Your task to perform on an android device: read, delete, or share a saved page in the chrome app Image 0: 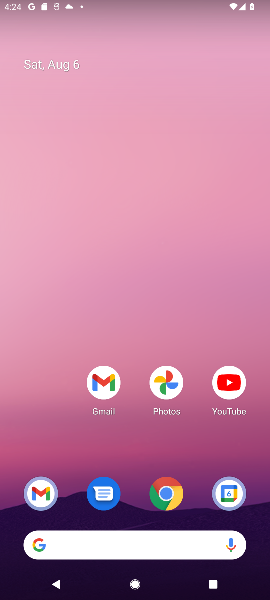
Step 0: drag from (172, 503) to (116, 165)
Your task to perform on an android device: read, delete, or share a saved page in the chrome app Image 1: 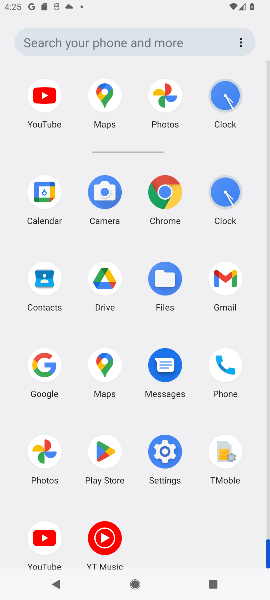
Step 1: click (163, 190)
Your task to perform on an android device: read, delete, or share a saved page in the chrome app Image 2: 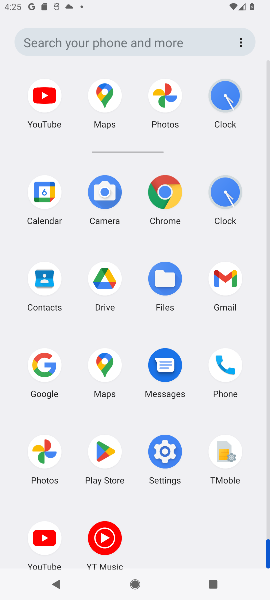
Step 2: click (164, 190)
Your task to perform on an android device: read, delete, or share a saved page in the chrome app Image 3: 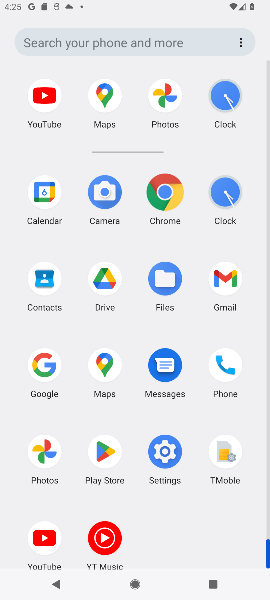
Step 3: click (164, 190)
Your task to perform on an android device: read, delete, or share a saved page in the chrome app Image 4: 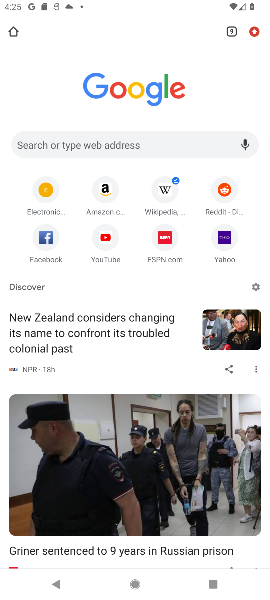
Step 4: click (248, 31)
Your task to perform on an android device: read, delete, or share a saved page in the chrome app Image 5: 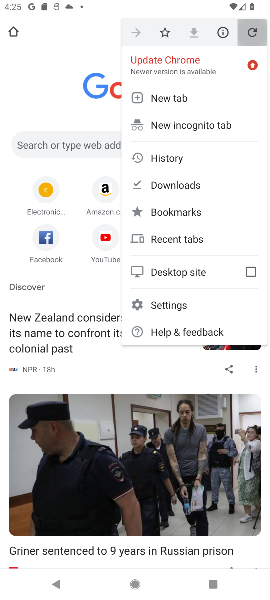
Step 5: click (254, 26)
Your task to perform on an android device: read, delete, or share a saved page in the chrome app Image 6: 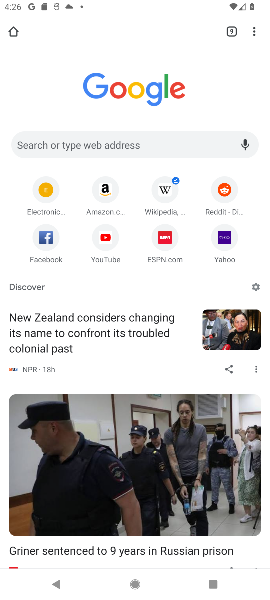
Step 6: click (254, 33)
Your task to perform on an android device: read, delete, or share a saved page in the chrome app Image 7: 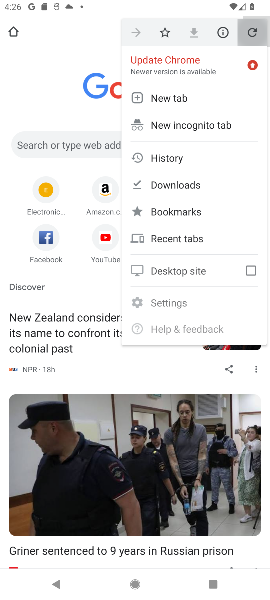
Step 7: click (254, 33)
Your task to perform on an android device: read, delete, or share a saved page in the chrome app Image 8: 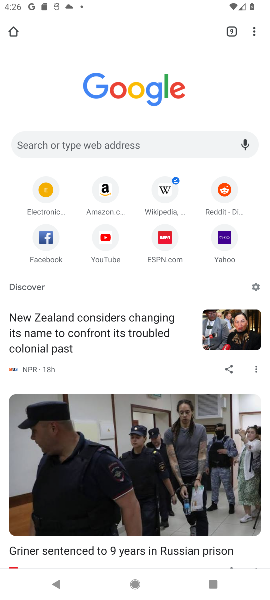
Step 8: drag from (252, 39) to (176, 181)
Your task to perform on an android device: read, delete, or share a saved page in the chrome app Image 9: 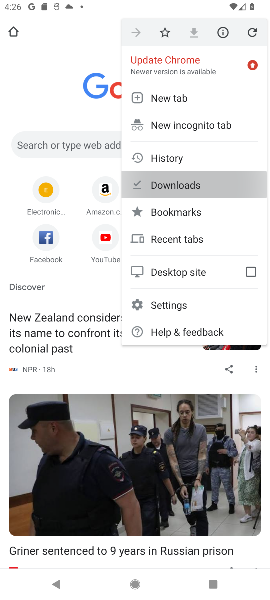
Step 9: click (175, 182)
Your task to perform on an android device: read, delete, or share a saved page in the chrome app Image 10: 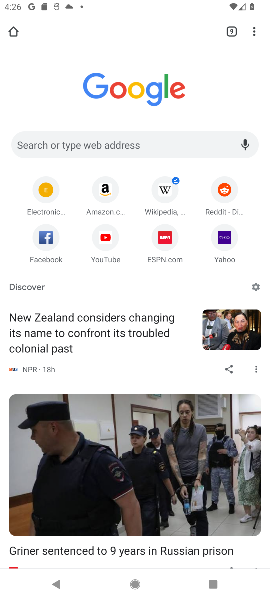
Step 10: click (175, 182)
Your task to perform on an android device: read, delete, or share a saved page in the chrome app Image 11: 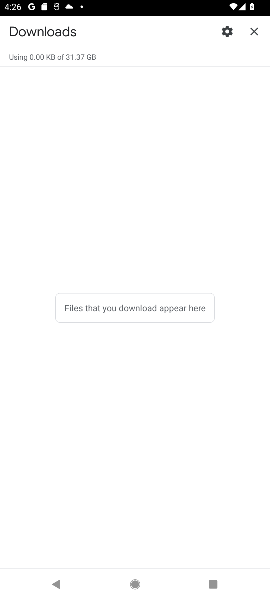
Step 11: click (51, 59)
Your task to perform on an android device: read, delete, or share a saved page in the chrome app Image 12: 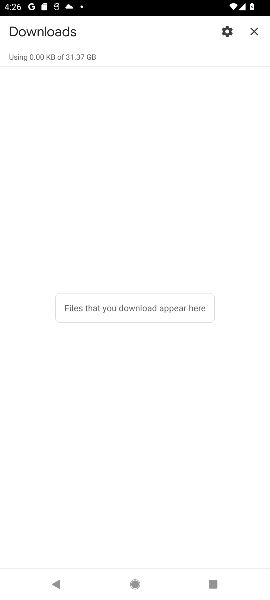
Step 12: click (53, 55)
Your task to perform on an android device: read, delete, or share a saved page in the chrome app Image 13: 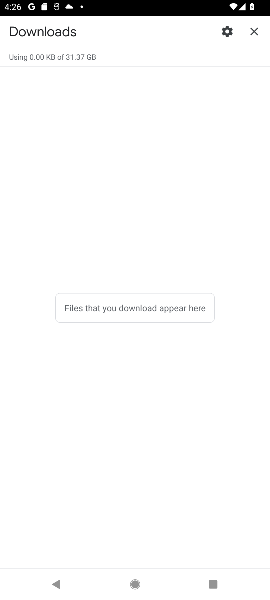
Step 13: click (55, 55)
Your task to perform on an android device: read, delete, or share a saved page in the chrome app Image 14: 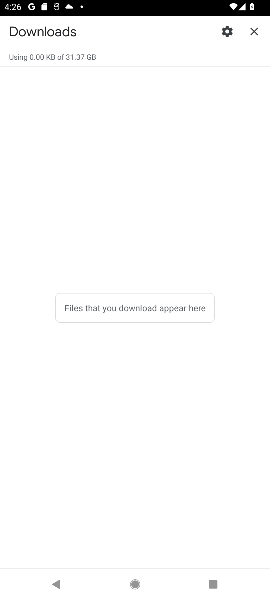
Step 14: click (58, 54)
Your task to perform on an android device: read, delete, or share a saved page in the chrome app Image 15: 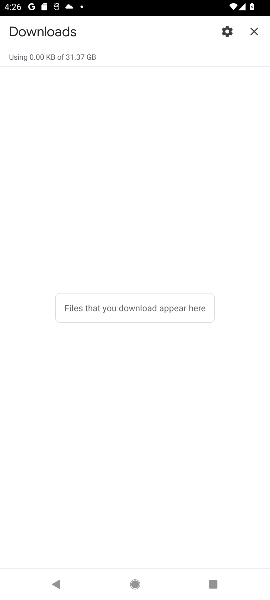
Step 15: click (60, 54)
Your task to perform on an android device: read, delete, or share a saved page in the chrome app Image 16: 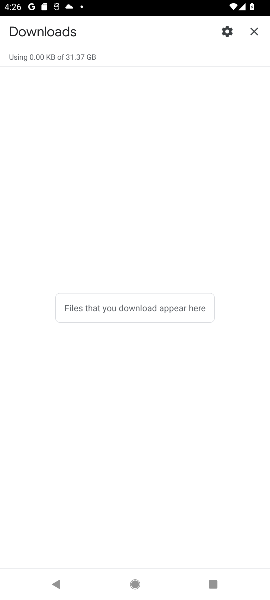
Step 16: click (60, 54)
Your task to perform on an android device: read, delete, or share a saved page in the chrome app Image 17: 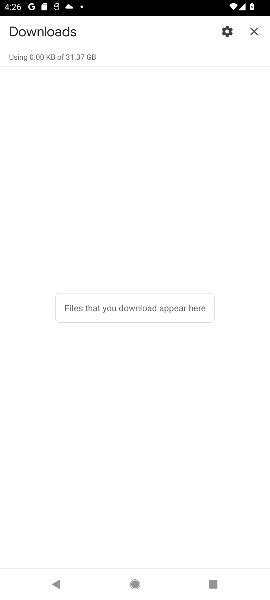
Step 17: click (67, 57)
Your task to perform on an android device: read, delete, or share a saved page in the chrome app Image 18: 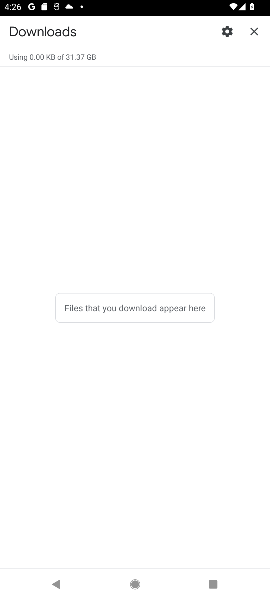
Step 18: click (75, 60)
Your task to perform on an android device: read, delete, or share a saved page in the chrome app Image 19: 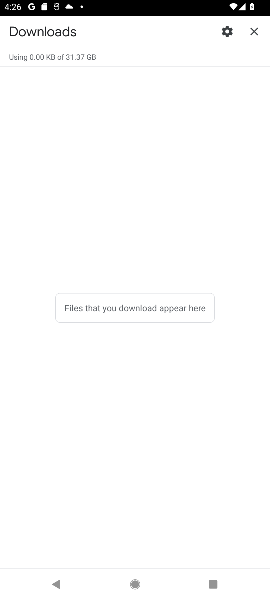
Step 19: click (76, 31)
Your task to perform on an android device: read, delete, or share a saved page in the chrome app Image 20: 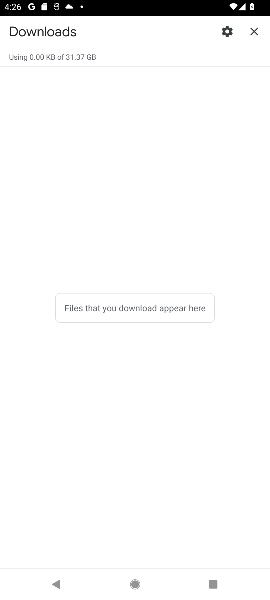
Step 20: click (76, 31)
Your task to perform on an android device: read, delete, or share a saved page in the chrome app Image 21: 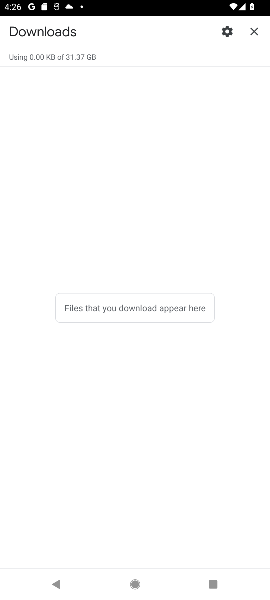
Step 21: click (76, 31)
Your task to perform on an android device: read, delete, or share a saved page in the chrome app Image 22: 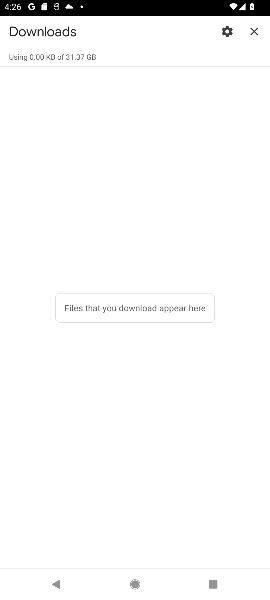
Step 22: click (76, 31)
Your task to perform on an android device: read, delete, or share a saved page in the chrome app Image 23: 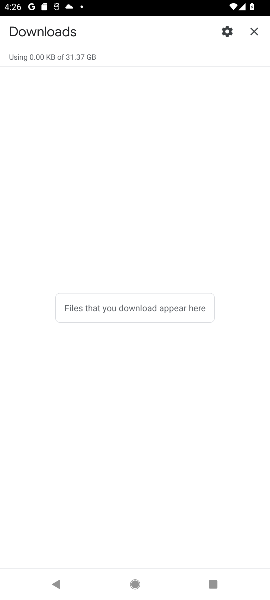
Step 23: click (64, 55)
Your task to perform on an android device: read, delete, or share a saved page in the chrome app Image 24: 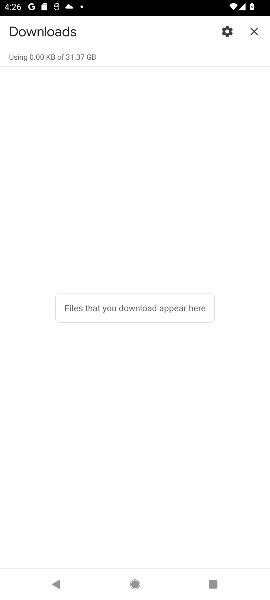
Step 24: click (64, 54)
Your task to perform on an android device: read, delete, or share a saved page in the chrome app Image 25: 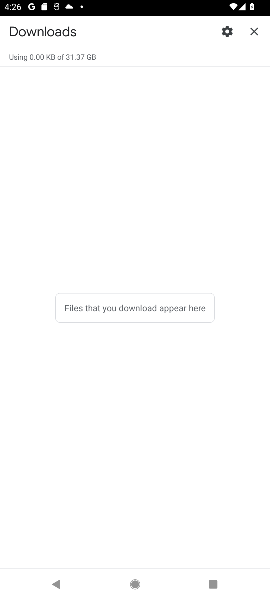
Step 25: click (64, 54)
Your task to perform on an android device: read, delete, or share a saved page in the chrome app Image 26: 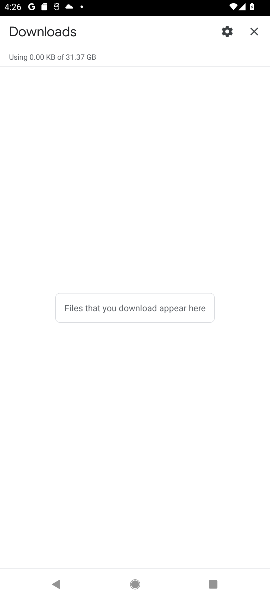
Step 26: click (64, 54)
Your task to perform on an android device: read, delete, or share a saved page in the chrome app Image 27: 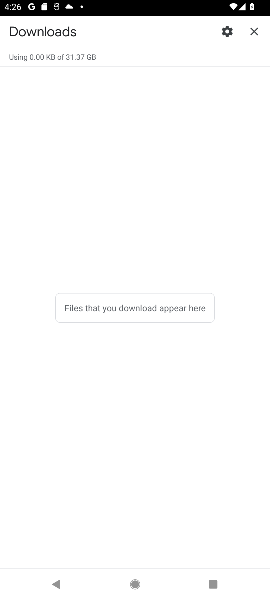
Step 27: click (65, 53)
Your task to perform on an android device: read, delete, or share a saved page in the chrome app Image 28: 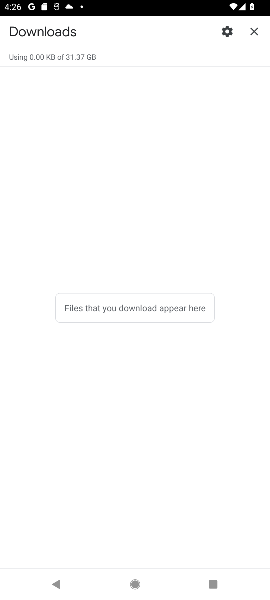
Step 28: click (65, 53)
Your task to perform on an android device: read, delete, or share a saved page in the chrome app Image 29: 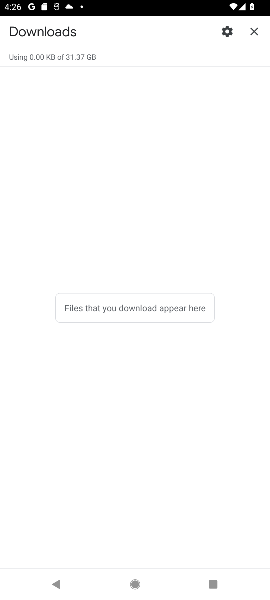
Step 29: click (65, 53)
Your task to perform on an android device: read, delete, or share a saved page in the chrome app Image 30: 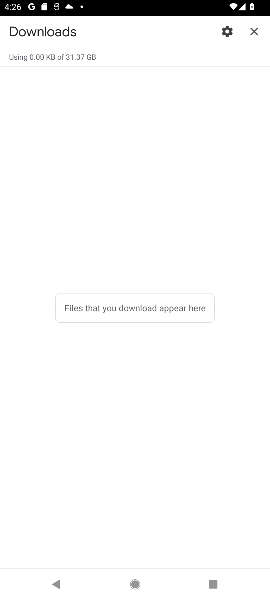
Step 30: task complete